Your task to perform on an android device: see creations saved in the google photos Image 0: 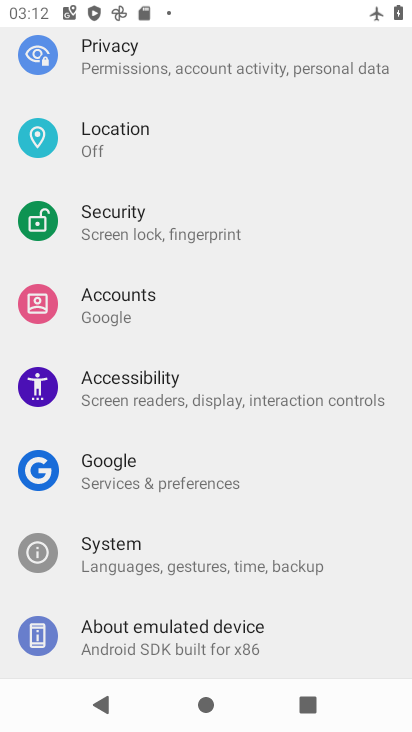
Step 0: drag from (199, 558) to (333, 138)
Your task to perform on an android device: see creations saved in the google photos Image 1: 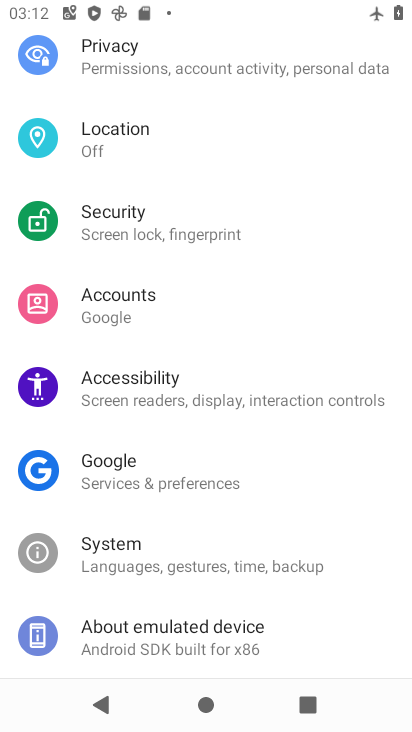
Step 1: press home button
Your task to perform on an android device: see creations saved in the google photos Image 2: 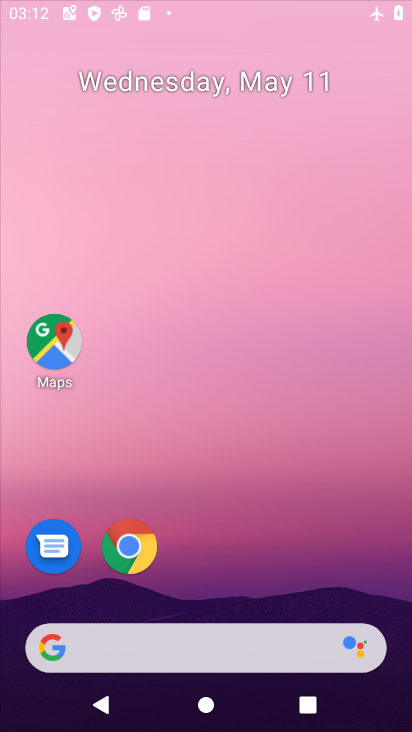
Step 2: drag from (217, 635) to (325, 182)
Your task to perform on an android device: see creations saved in the google photos Image 3: 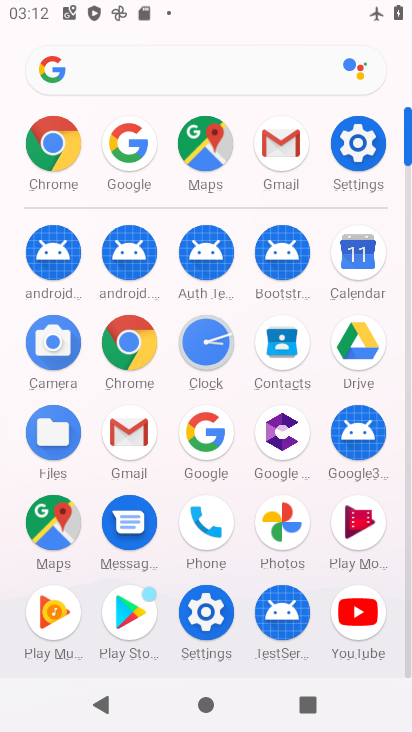
Step 3: click (283, 531)
Your task to perform on an android device: see creations saved in the google photos Image 4: 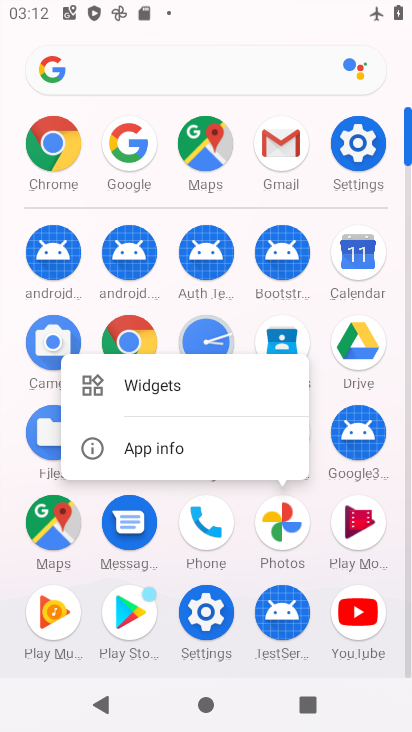
Step 4: click (161, 443)
Your task to perform on an android device: see creations saved in the google photos Image 5: 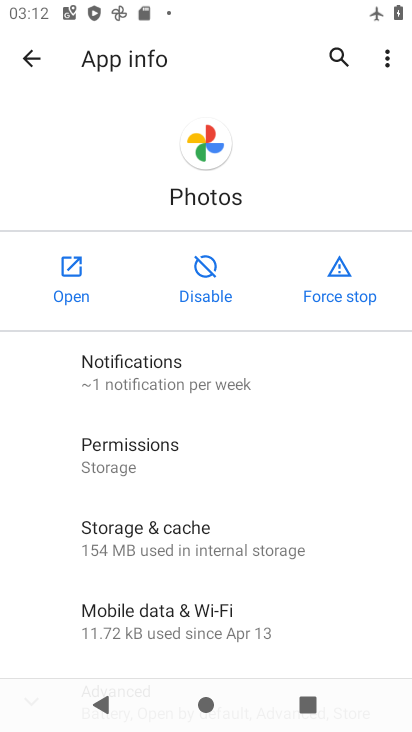
Step 5: click (67, 268)
Your task to perform on an android device: see creations saved in the google photos Image 6: 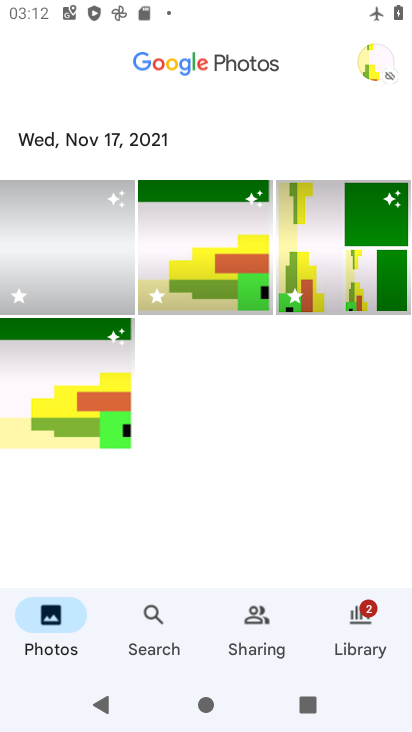
Step 6: click (134, 621)
Your task to perform on an android device: see creations saved in the google photos Image 7: 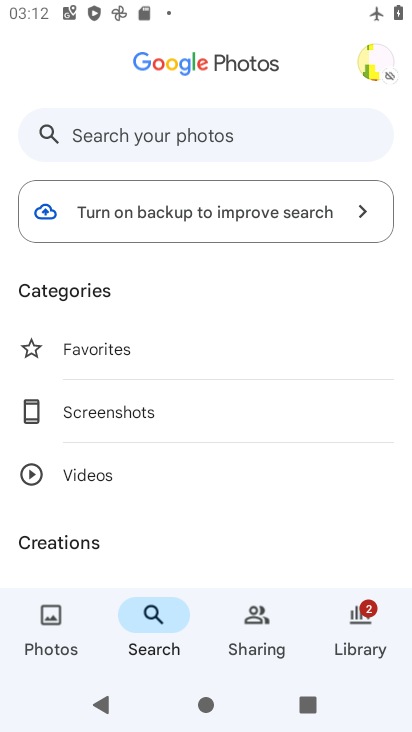
Step 7: drag from (154, 574) to (334, 143)
Your task to perform on an android device: see creations saved in the google photos Image 8: 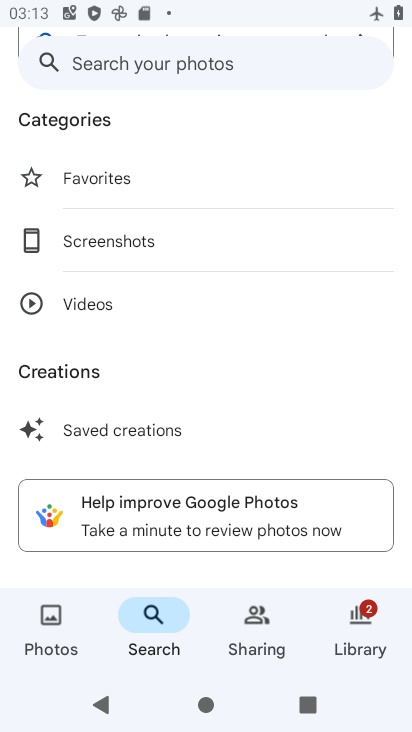
Step 8: click (71, 441)
Your task to perform on an android device: see creations saved in the google photos Image 9: 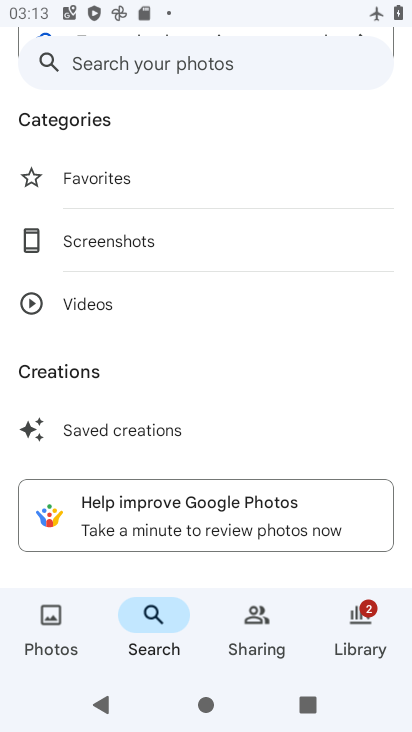
Step 9: click (71, 441)
Your task to perform on an android device: see creations saved in the google photos Image 10: 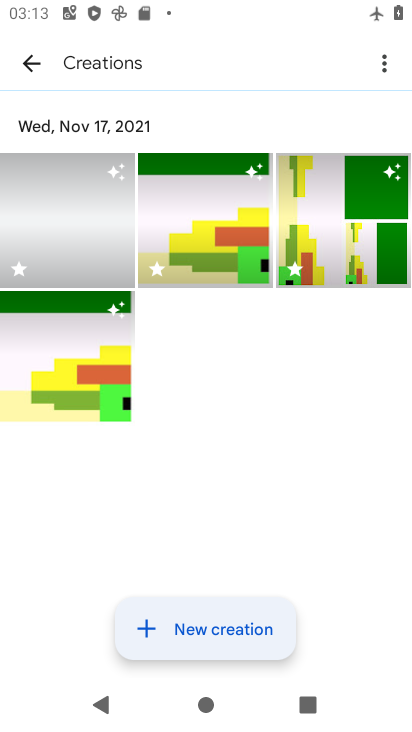
Step 10: task complete